Your task to perform on an android device: toggle airplane mode Image 0: 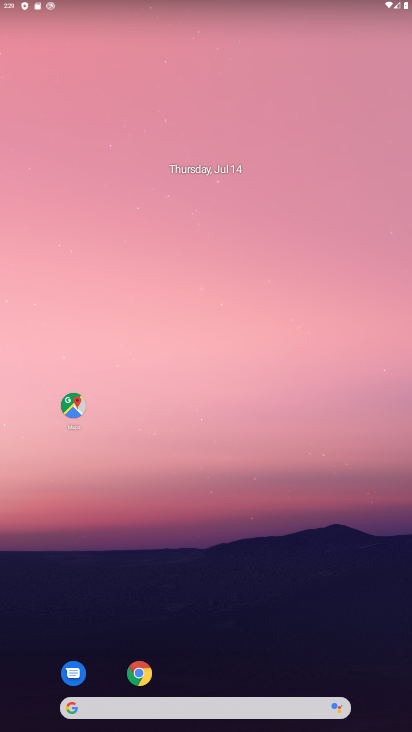
Step 0: drag from (206, 648) to (297, 188)
Your task to perform on an android device: toggle airplane mode Image 1: 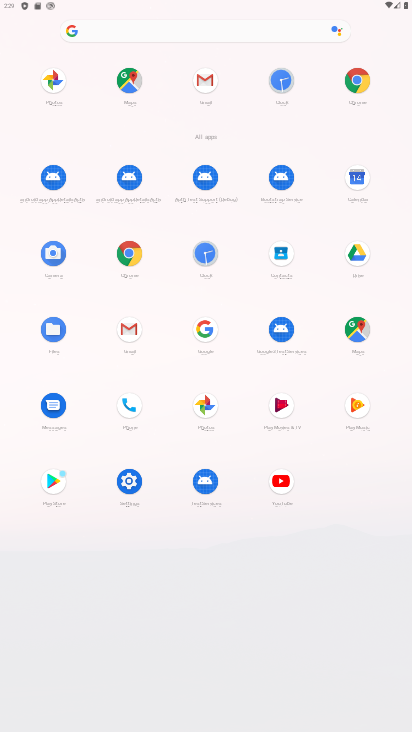
Step 1: click (136, 490)
Your task to perform on an android device: toggle airplane mode Image 2: 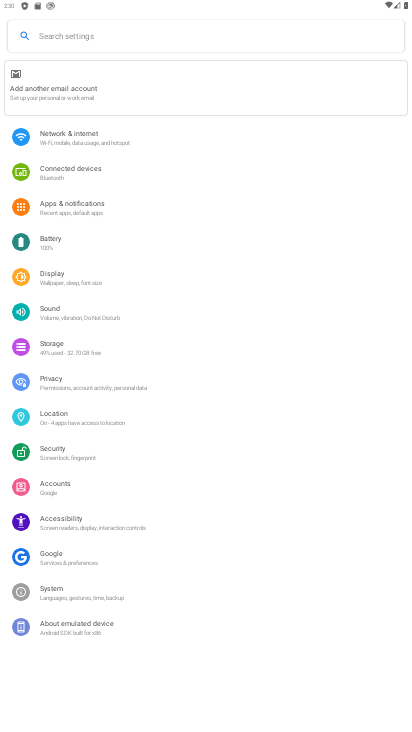
Step 2: click (158, 148)
Your task to perform on an android device: toggle airplane mode Image 3: 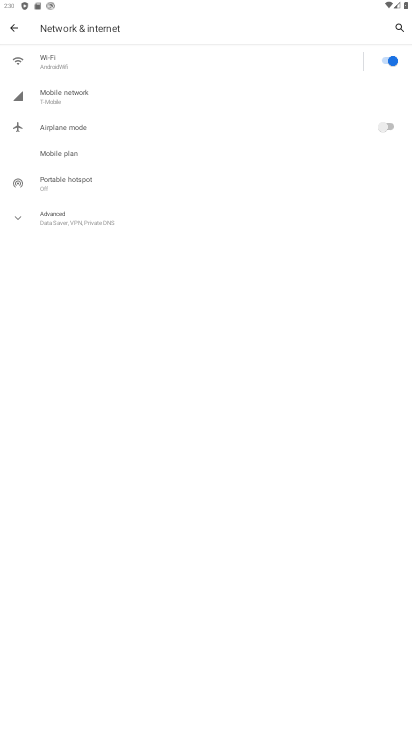
Step 3: click (406, 125)
Your task to perform on an android device: toggle airplane mode Image 4: 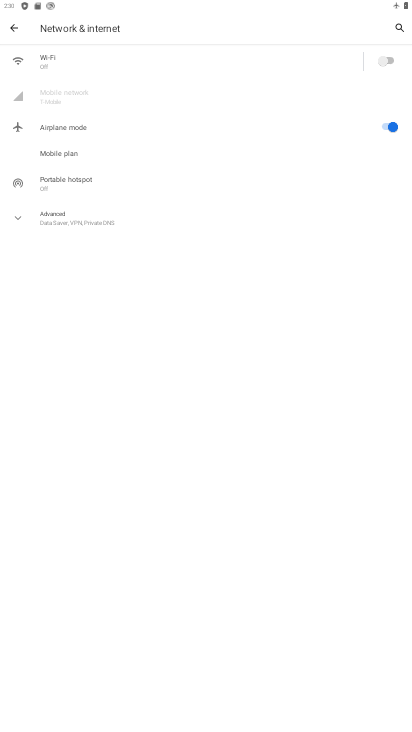
Step 4: task complete